Your task to perform on an android device: Open settings on Google Maps Image 0: 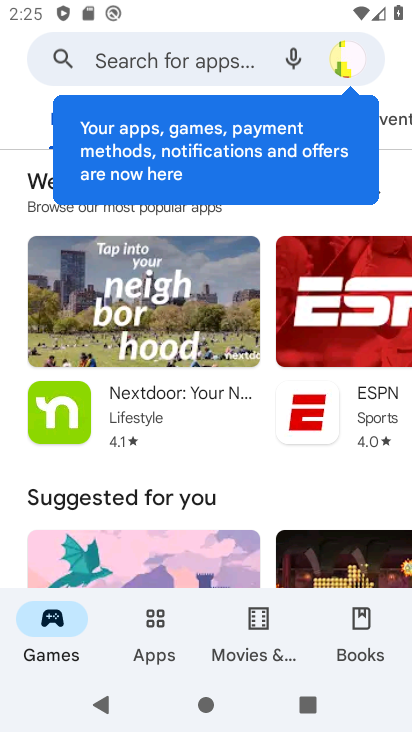
Step 0: press home button
Your task to perform on an android device: Open settings on Google Maps Image 1: 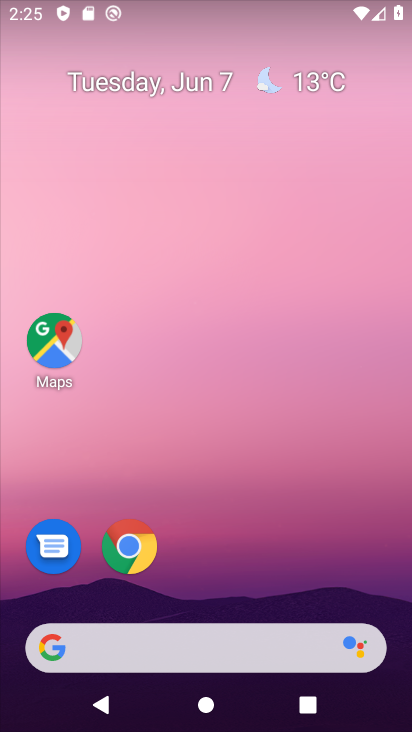
Step 1: click (41, 357)
Your task to perform on an android device: Open settings on Google Maps Image 2: 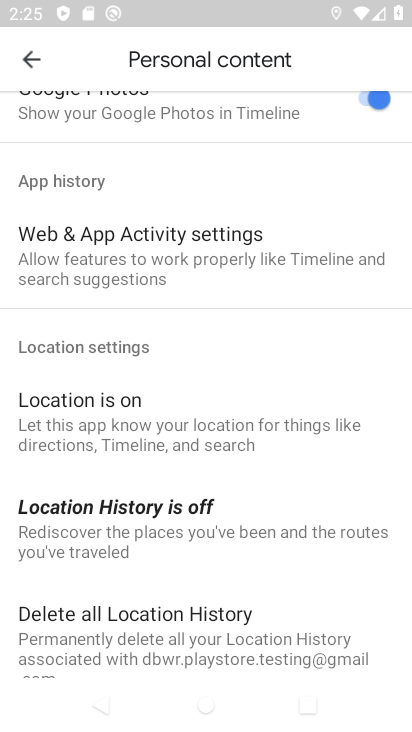
Step 2: click (40, 59)
Your task to perform on an android device: Open settings on Google Maps Image 3: 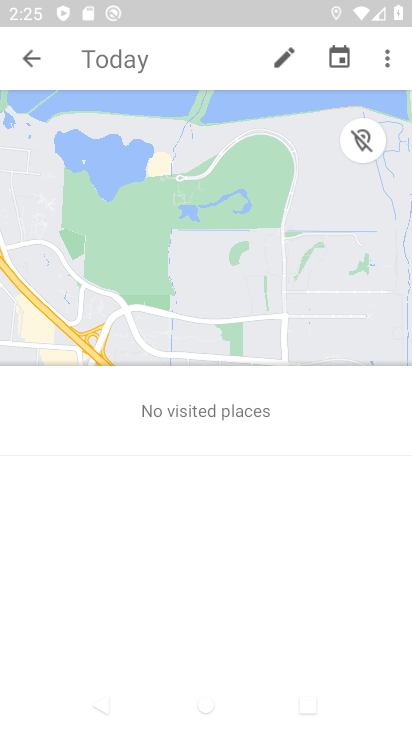
Step 3: click (40, 59)
Your task to perform on an android device: Open settings on Google Maps Image 4: 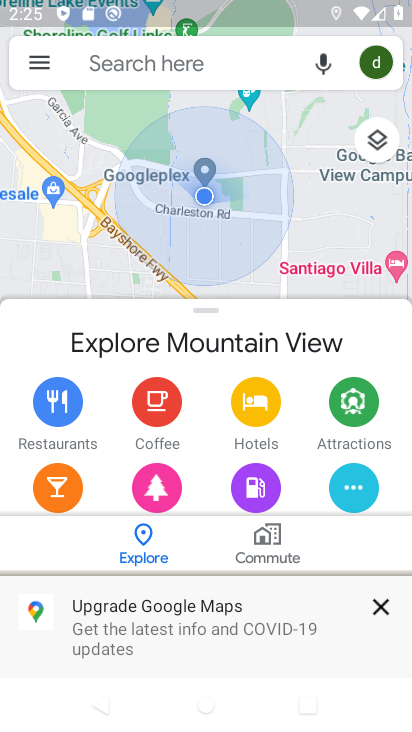
Step 4: click (36, 68)
Your task to perform on an android device: Open settings on Google Maps Image 5: 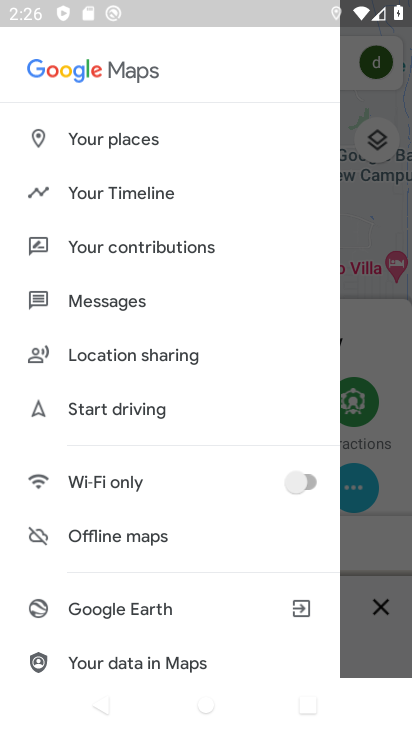
Step 5: drag from (116, 541) to (191, 161)
Your task to perform on an android device: Open settings on Google Maps Image 6: 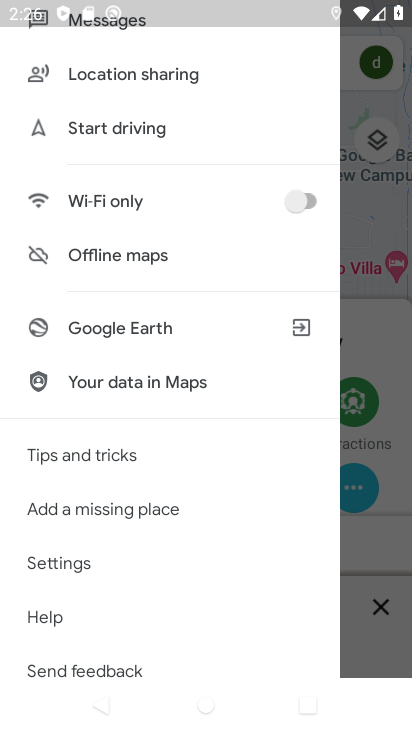
Step 6: click (81, 564)
Your task to perform on an android device: Open settings on Google Maps Image 7: 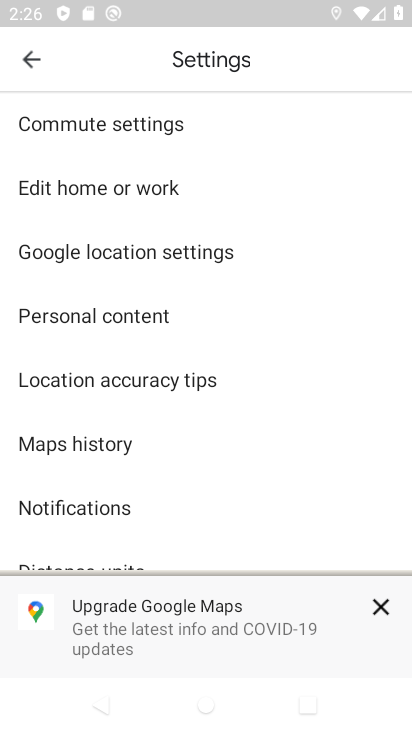
Step 7: task complete